Your task to perform on an android device: open chrome privacy settings Image 0: 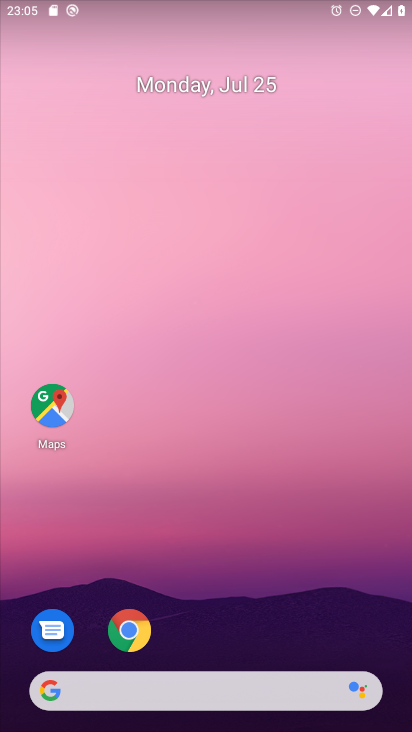
Step 0: drag from (281, 582) to (226, 45)
Your task to perform on an android device: open chrome privacy settings Image 1: 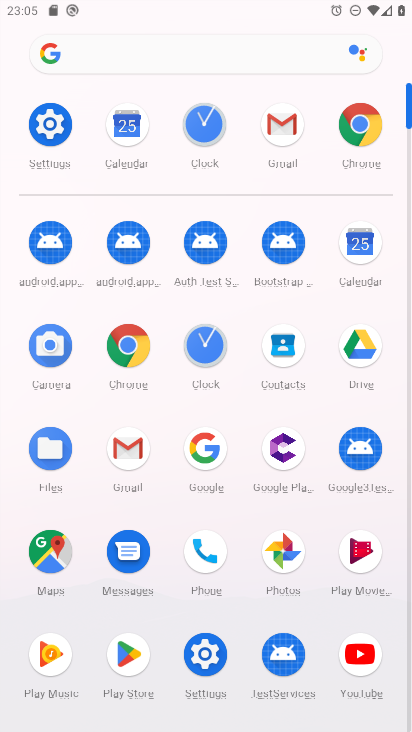
Step 1: click (357, 124)
Your task to perform on an android device: open chrome privacy settings Image 2: 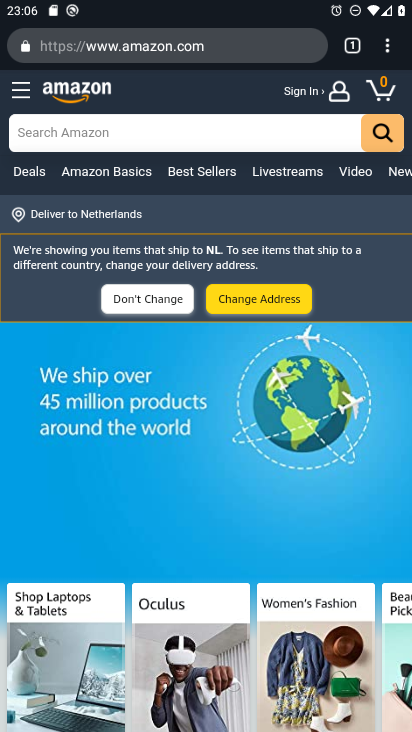
Step 2: drag from (389, 53) to (246, 584)
Your task to perform on an android device: open chrome privacy settings Image 3: 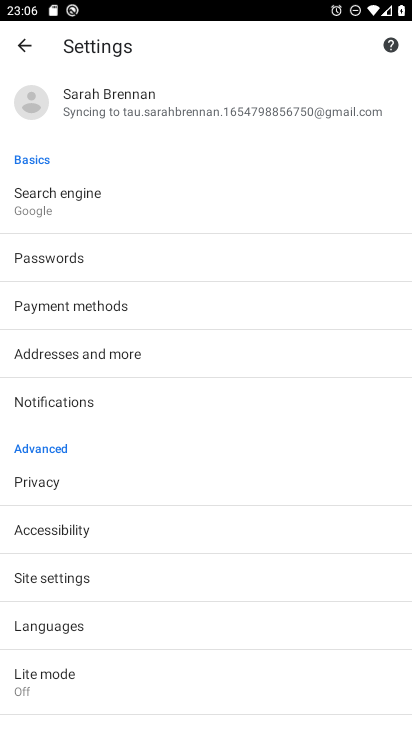
Step 3: drag from (146, 673) to (192, 204)
Your task to perform on an android device: open chrome privacy settings Image 4: 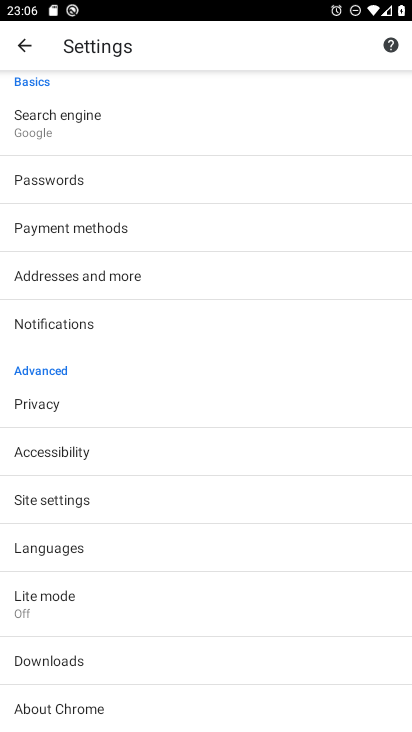
Step 4: click (65, 401)
Your task to perform on an android device: open chrome privacy settings Image 5: 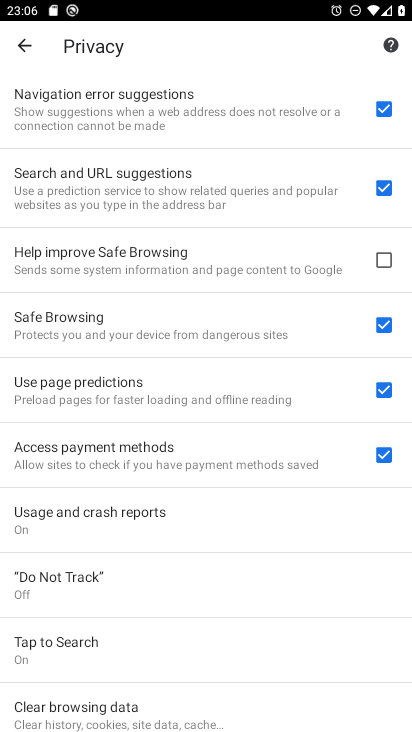
Step 5: task complete